Your task to perform on an android device: Go to accessibility settings Image 0: 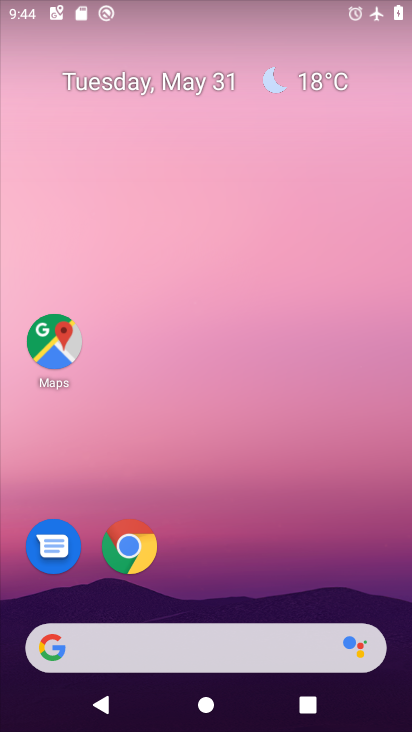
Step 0: drag from (244, 606) to (269, 386)
Your task to perform on an android device: Go to accessibility settings Image 1: 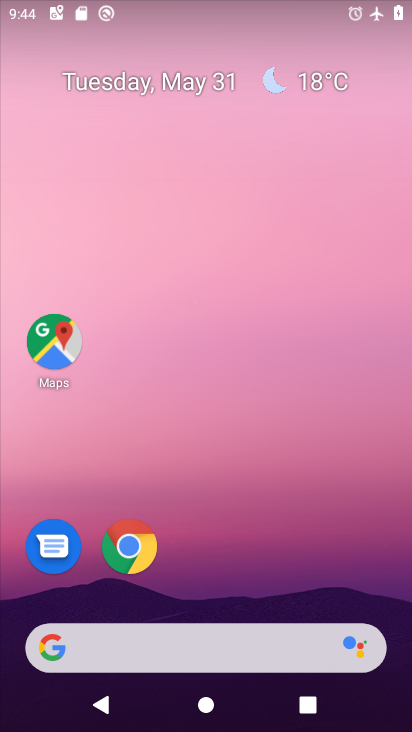
Step 1: drag from (234, 590) to (341, 13)
Your task to perform on an android device: Go to accessibility settings Image 2: 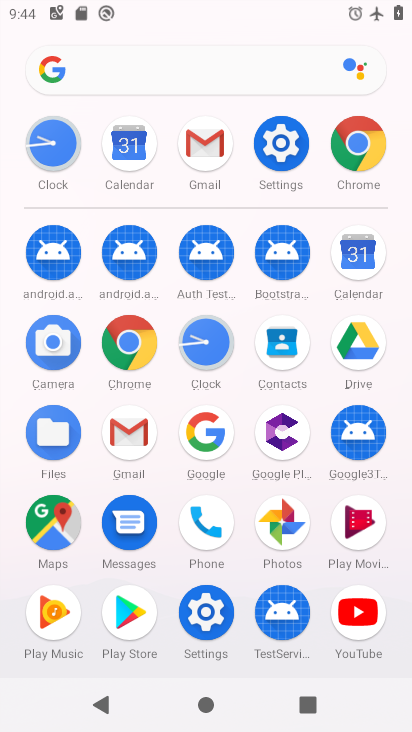
Step 2: click (287, 159)
Your task to perform on an android device: Go to accessibility settings Image 3: 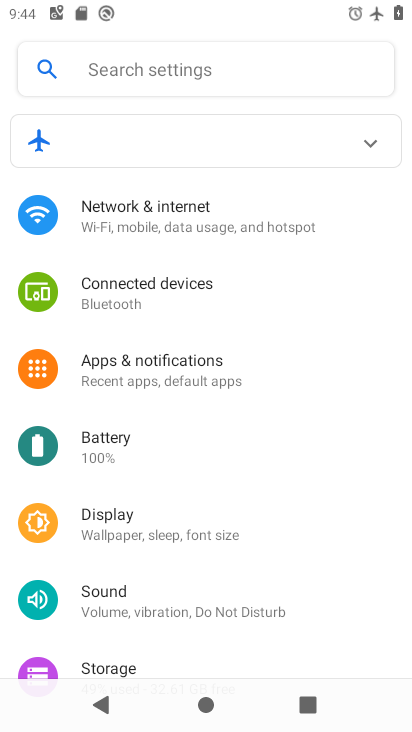
Step 3: drag from (203, 600) to (267, 220)
Your task to perform on an android device: Go to accessibility settings Image 4: 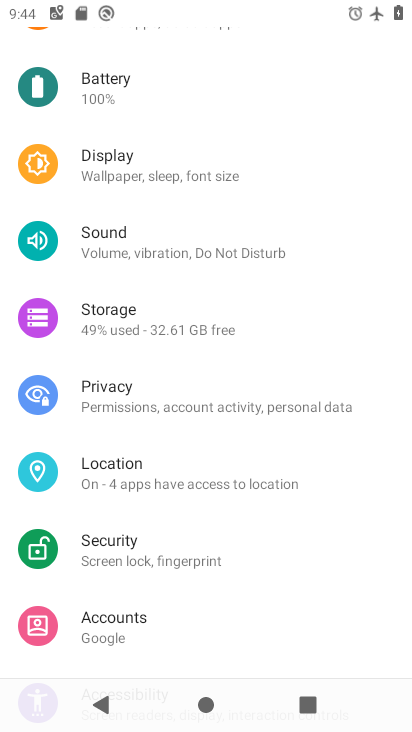
Step 4: drag from (146, 633) to (198, 408)
Your task to perform on an android device: Go to accessibility settings Image 5: 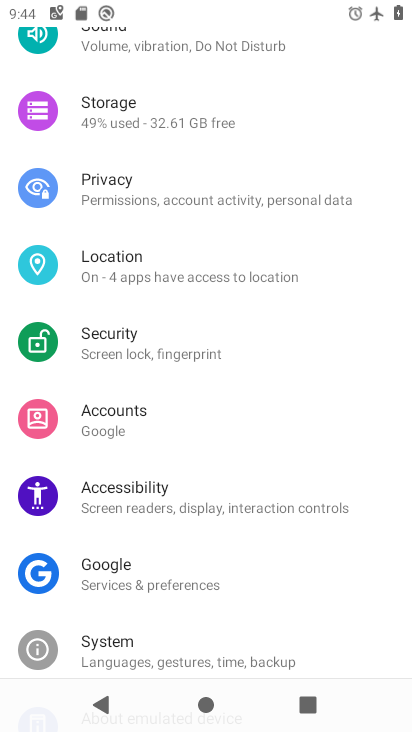
Step 5: click (145, 496)
Your task to perform on an android device: Go to accessibility settings Image 6: 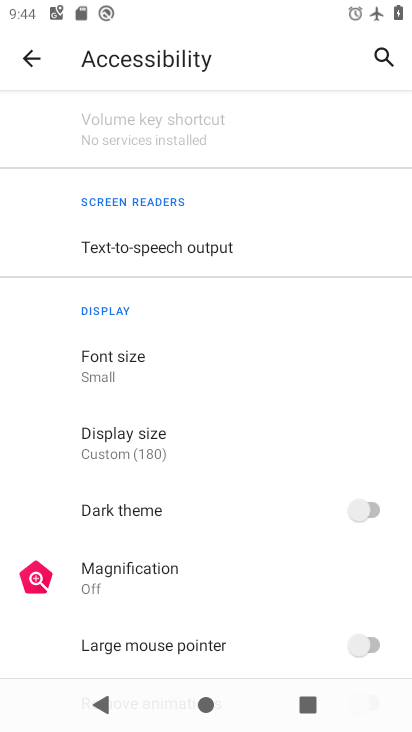
Step 6: task complete